Your task to perform on an android device: Check the weather Image 0: 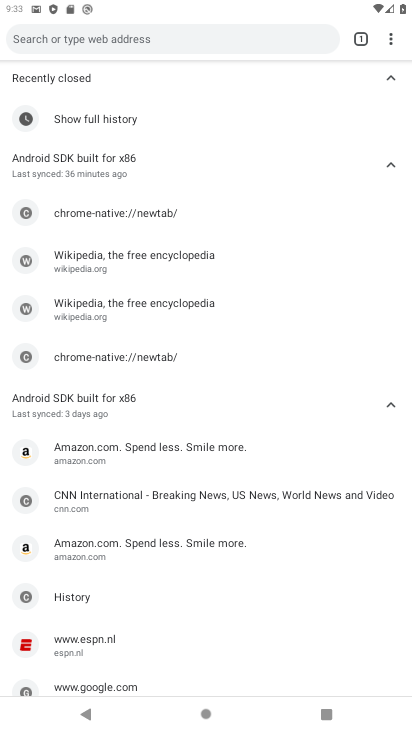
Step 0: press back button
Your task to perform on an android device: Check the weather Image 1: 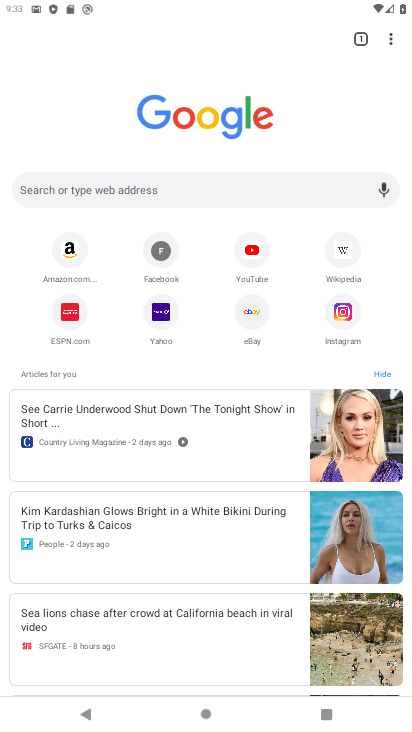
Step 1: press home button
Your task to perform on an android device: Check the weather Image 2: 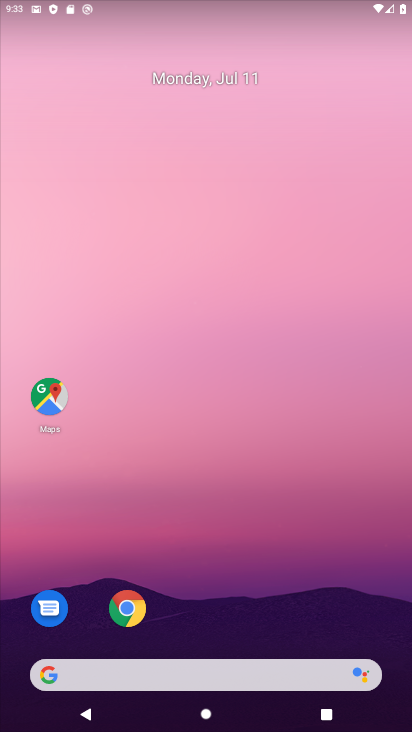
Step 2: drag from (262, 714) to (132, 122)
Your task to perform on an android device: Check the weather Image 3: 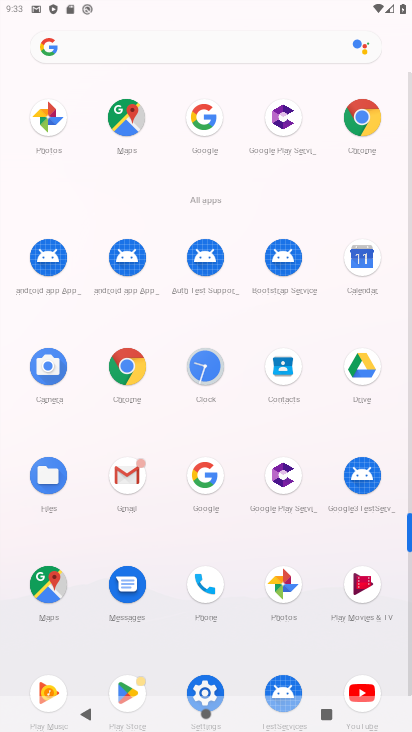
Step 3: press back button
Your task to perform on an android device: Check the weather Image 4: 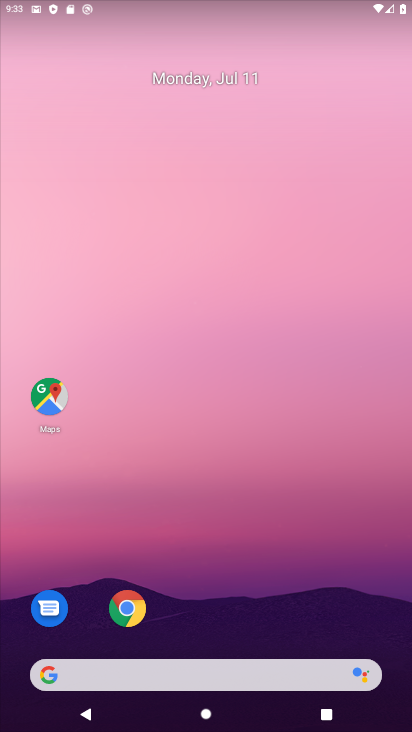
Step 4: drag from (16, 101) to (265, 425)
Your task to perform on an android device: Check the weather Image 5: 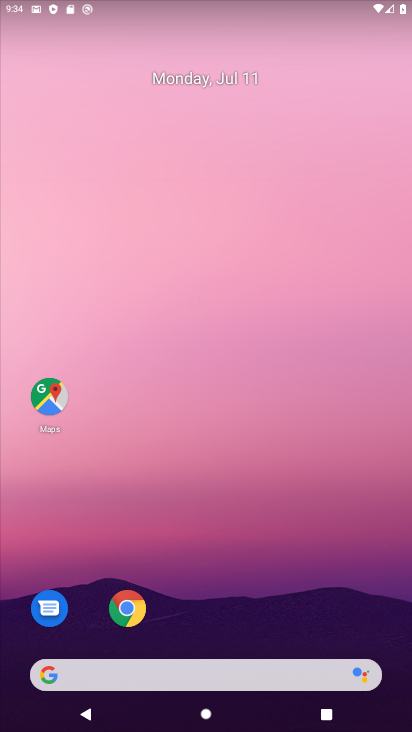
Step 5: drag from (409, 266) to (380, 338)
Your task to perform on an android device: Check the weather Image 6: 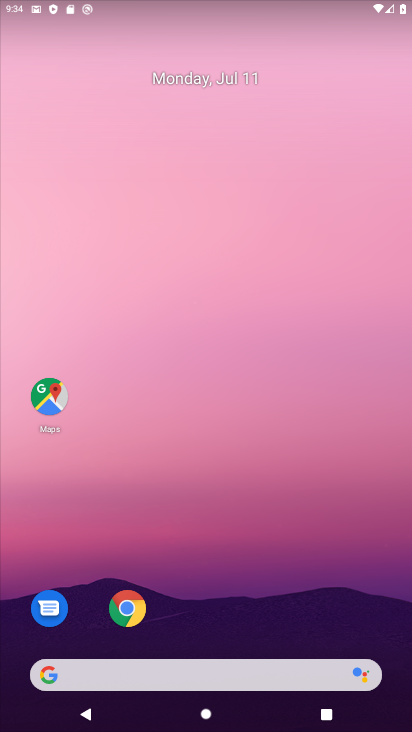
Step 6: drag from (34, 135) to (320, 486)
Your task to perform on an android device: Check the weather Image 7: 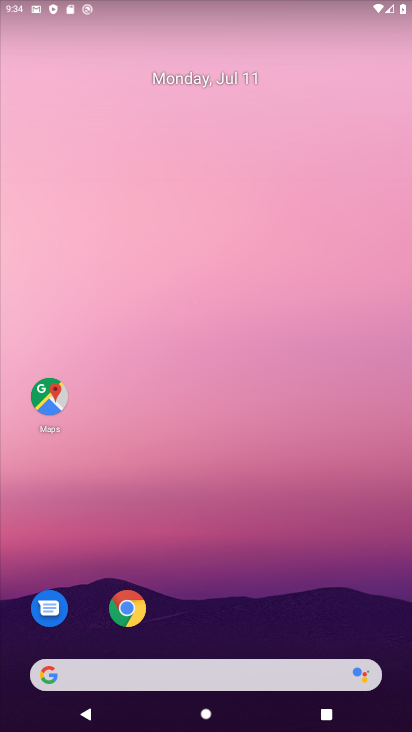
Step 7: drag from (33, 116) to (380, 474)
Your task to perform on an android device: Check the weather Image 8: 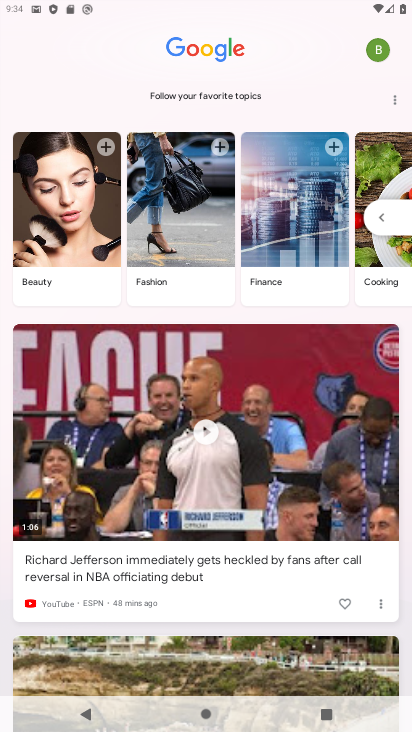
Step 8: drag from (161, 141) to (156, 572)
Your task to perform on an android device: Check the weather Image 9: 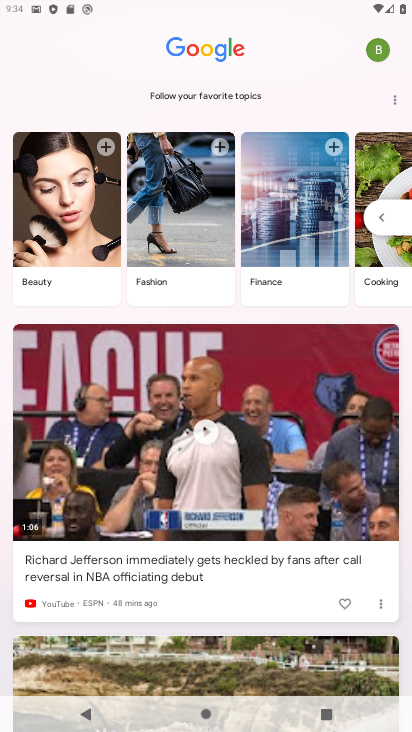
Step 9: drag from (125, 87) to (154, 475)
Your task to perform on an android device: Check the weather Image 10: 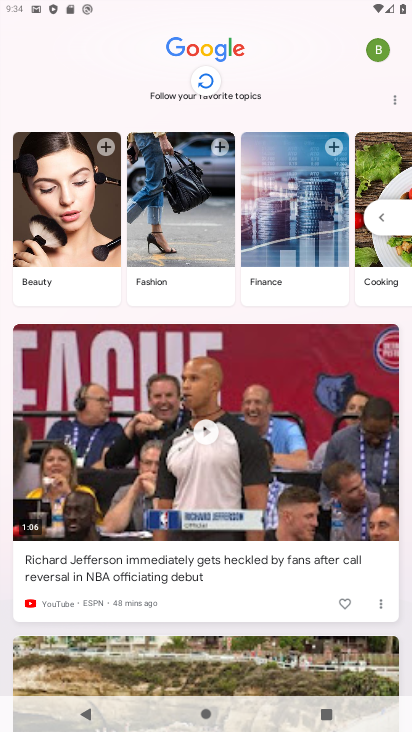
Step 10: drag from (160, 74) to (210, 407)
Your task to perform on an android device: Check the weather Image 11: 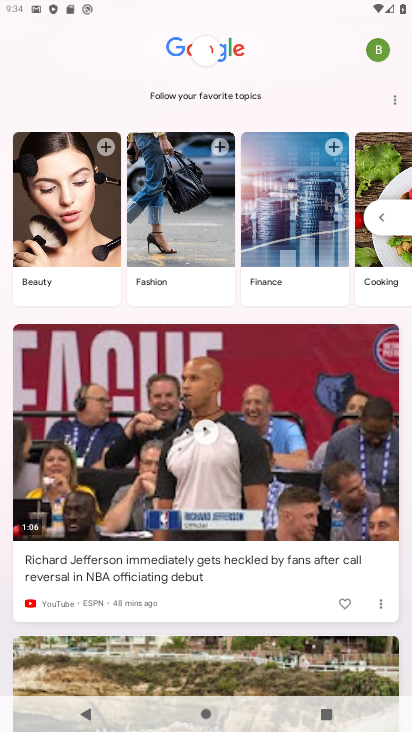
Step 11: click (391, 99)
Your task to perform on an android device: Check the weather Image 12: 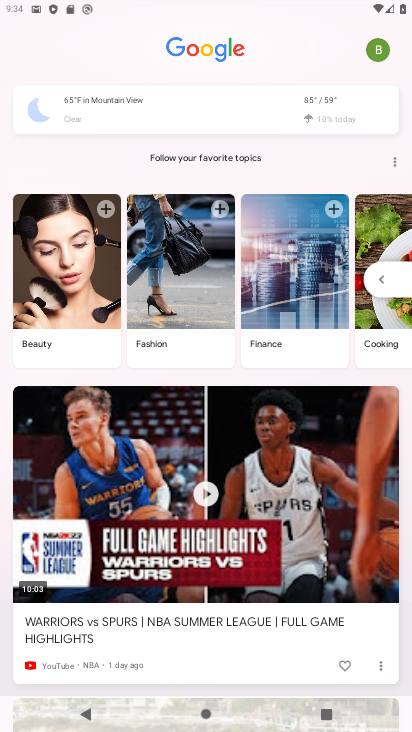
Step 12: click (128, 98)
Your task to perform on an android device: Check the weather Image 13: 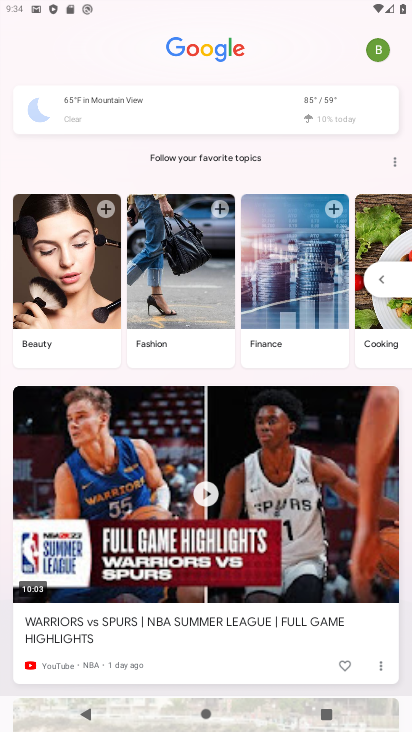
Step 13: click (124, 98)
Your task to perform on an android device: Check the weather Image 14: 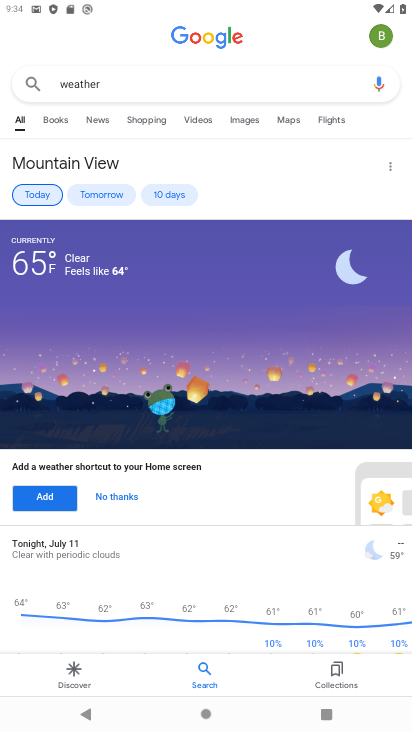
Step 14: task complete